Your task to perform on an android device: Search for vegetarian restaurants on Maps Image 0: 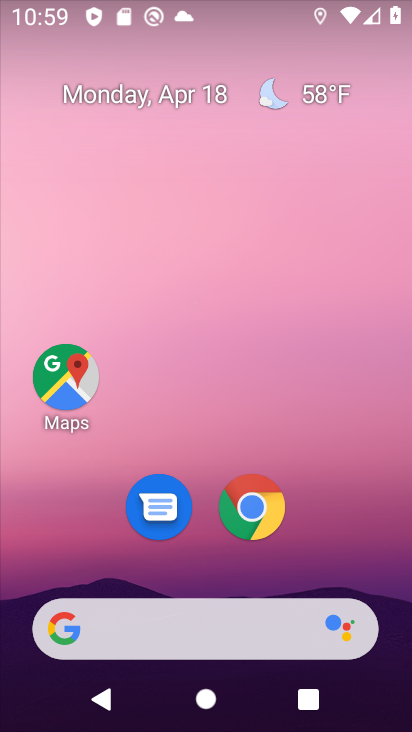
Step 0: click (72, 372)
Your task to perform on an android device: Search for vegetarian restaurants on Maps Image 1: 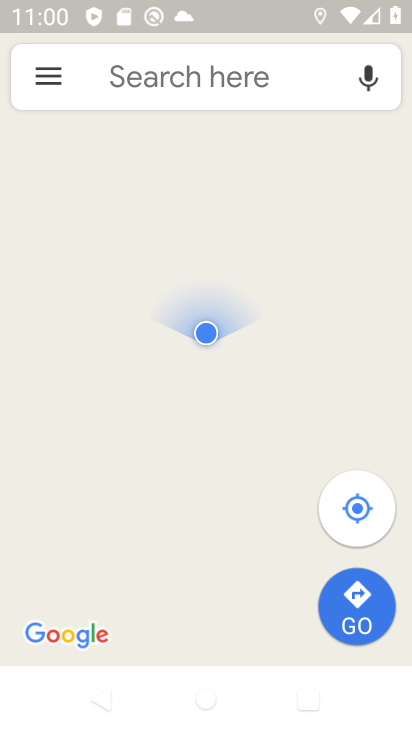
Step 1: click (160, 79)
Your task to perform on an android device: Search for vegetarian restaurants on Maps Image 2: 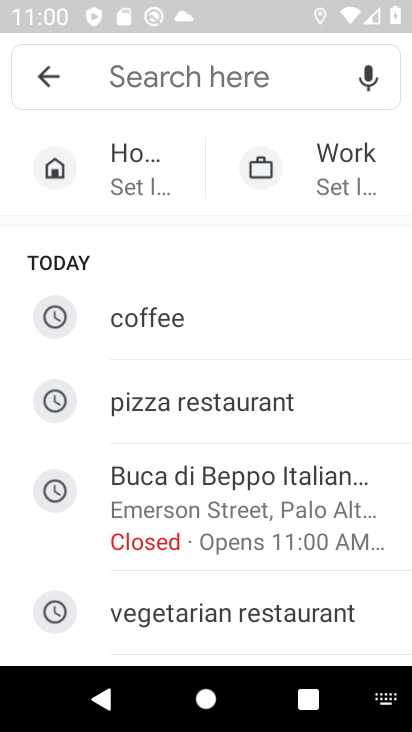
Step 2: type "vegetarian restaurants"
Your task to perform on an android device: Search for vegetarian restaurants on Maps Image 3: 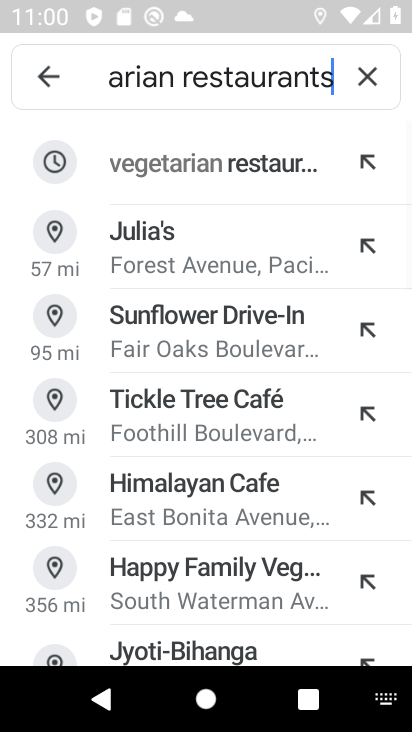
Step 3: click (261, 170)
Your task to perform on an android device: Search for vegetarian restaurants on Maps Image 4: 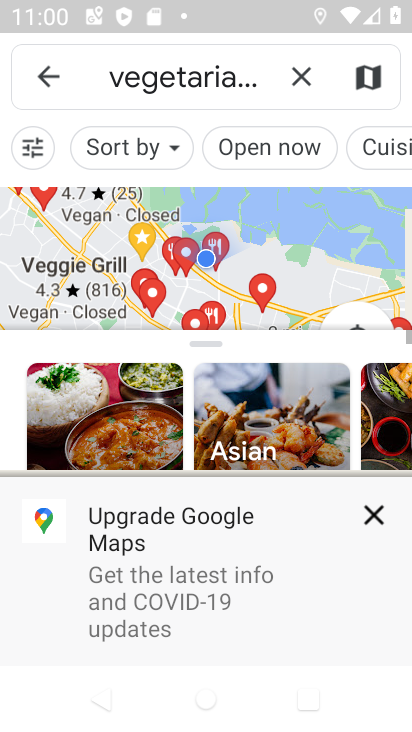
Step 4: task complete